Your task to perform on an android device: toggle translation in the chrome app Image 0: 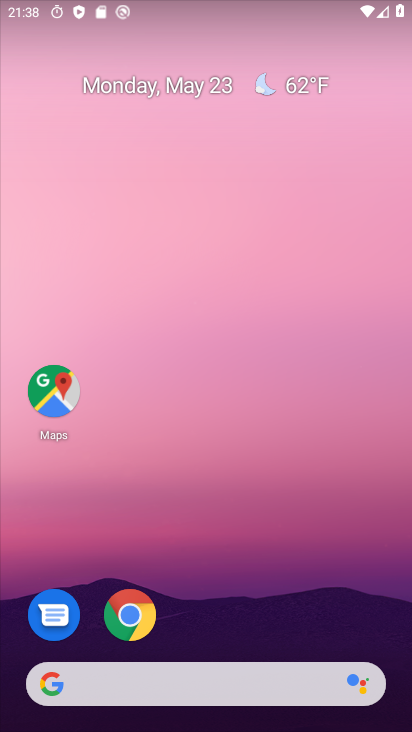
Step 0: click (127, 612)
Your task to perform on an android device: toggle translation in the chrome app Image 1: 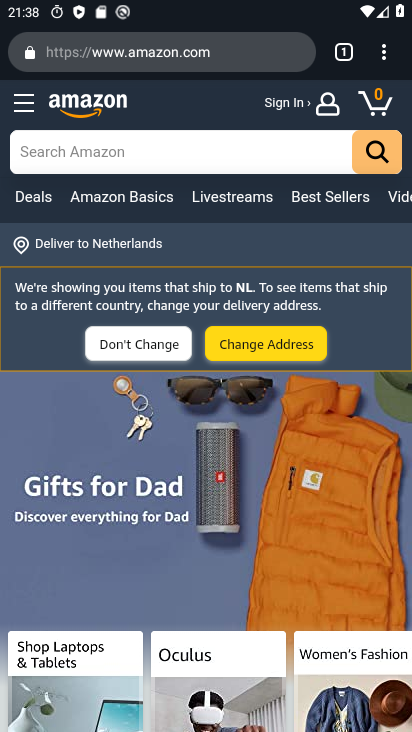
Step 1: click (374, 57)
Your task to perform on an android device: toggle translation in the chrome app Image 2: 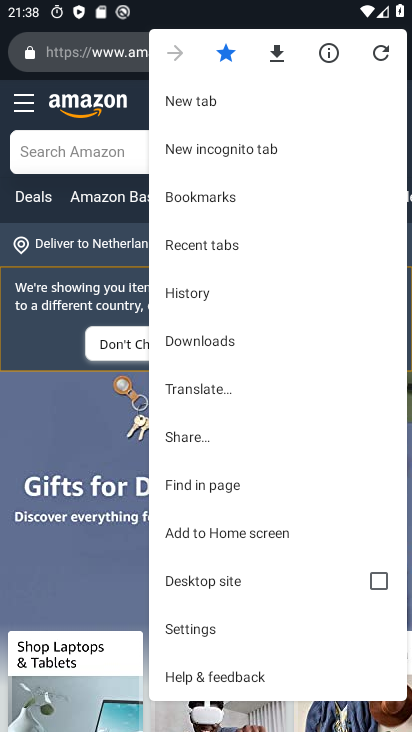
Step 2: click (206, 639)
Your task to perform on an android device: toggle translation in the chrome app Image 3: 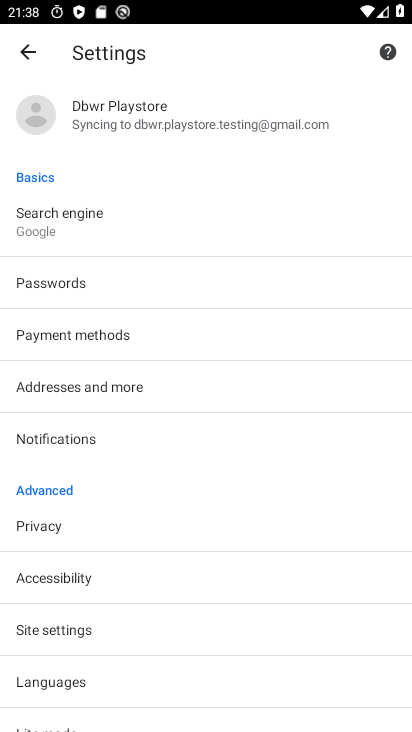
Step 3: click (94, 679)
Your task to perform on an android device: toggle translation in the chrome app Image 4: 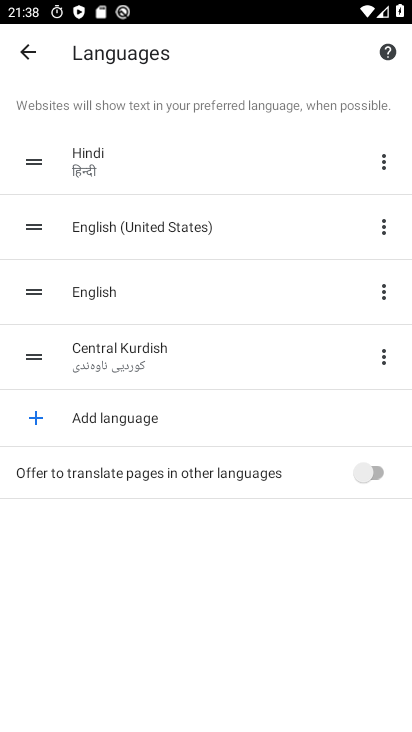
Step 4: click (371, 467)
Your task to perform on an android device: toggle translation in the chrome app Image 5: 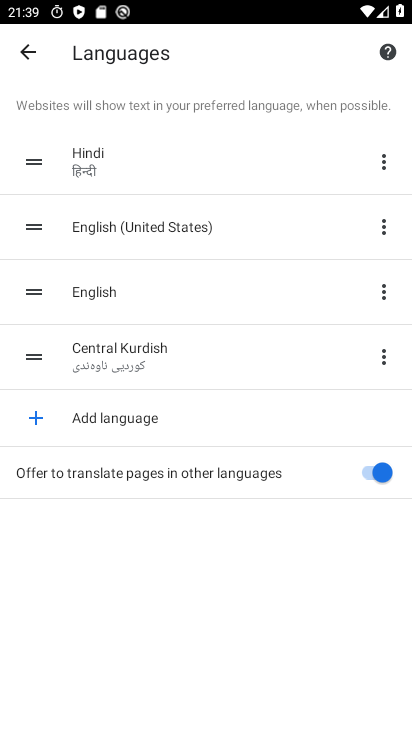
Step 5: task complete